Your task to perform on an android device: Open Reddit.com Image 0: 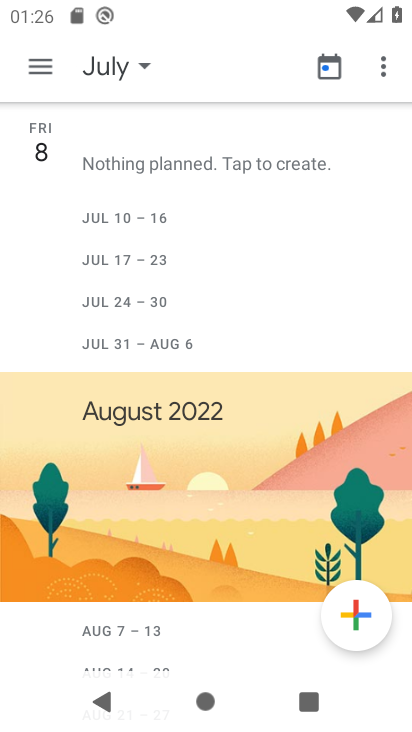
Step 0: press home button
Your task to perform on an android device: Open Reddit.com Image 1: 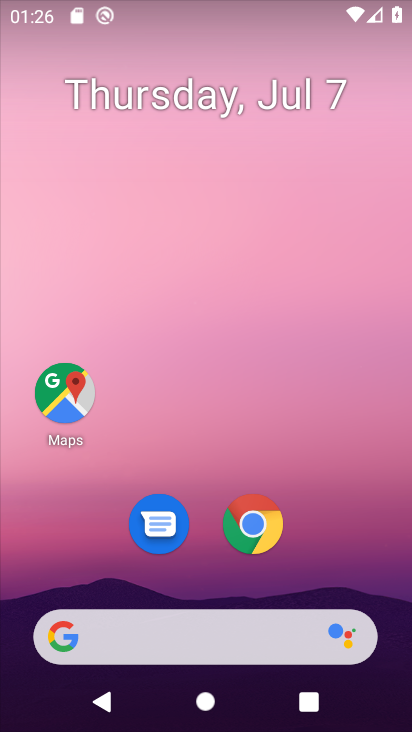
Step 1: click (235, 633)
Your task to perform on an android device: Open Reddit.com Image 2: 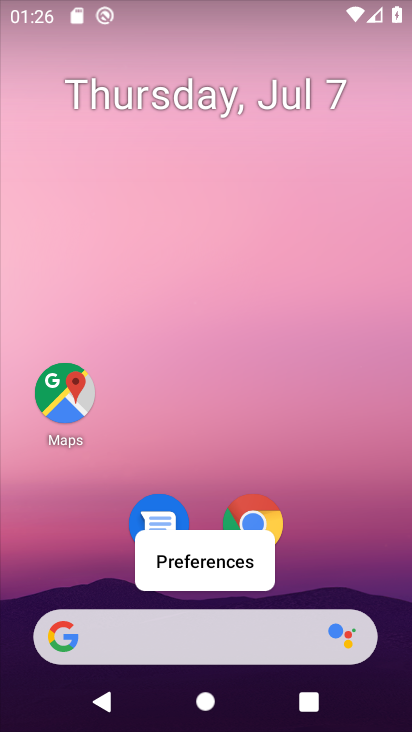
Step 2: click (138, 643)
Your task to perform on an android device: Open Reddit.com Image 3: 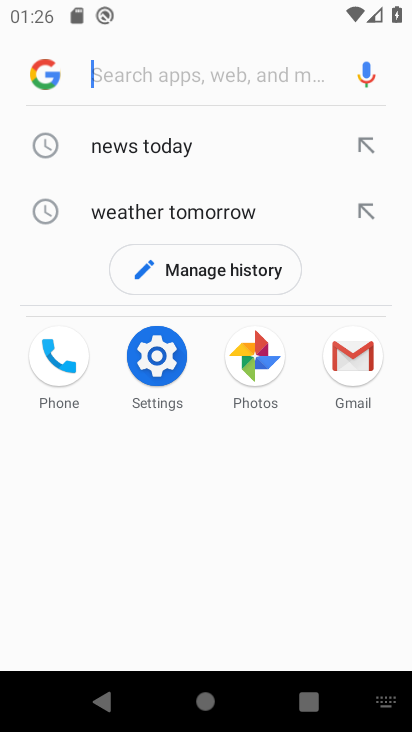
Step 3: type "reddit.com"
Your task to perform on an android device: Open Reddit.com Image 4: 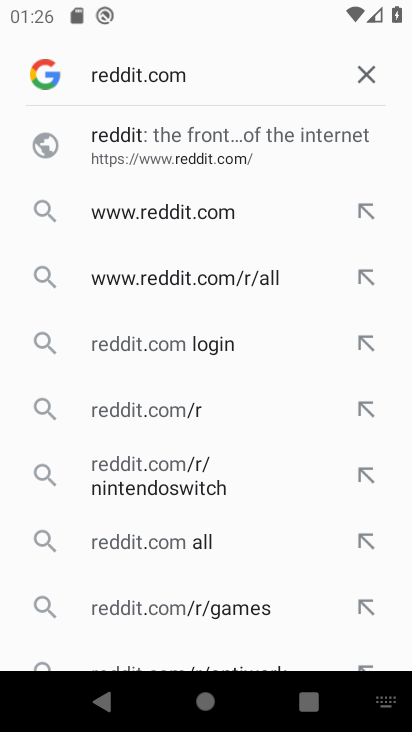
Step 4: click (153, 129)
Your task to perform on an android device: Open Reddit.com Image 5: 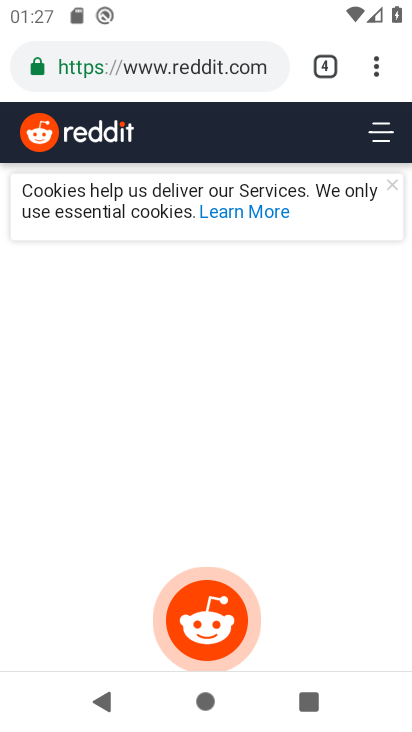
Step 5: task complete